Your task to perform on an android device: empty trash in google photos Image 0: 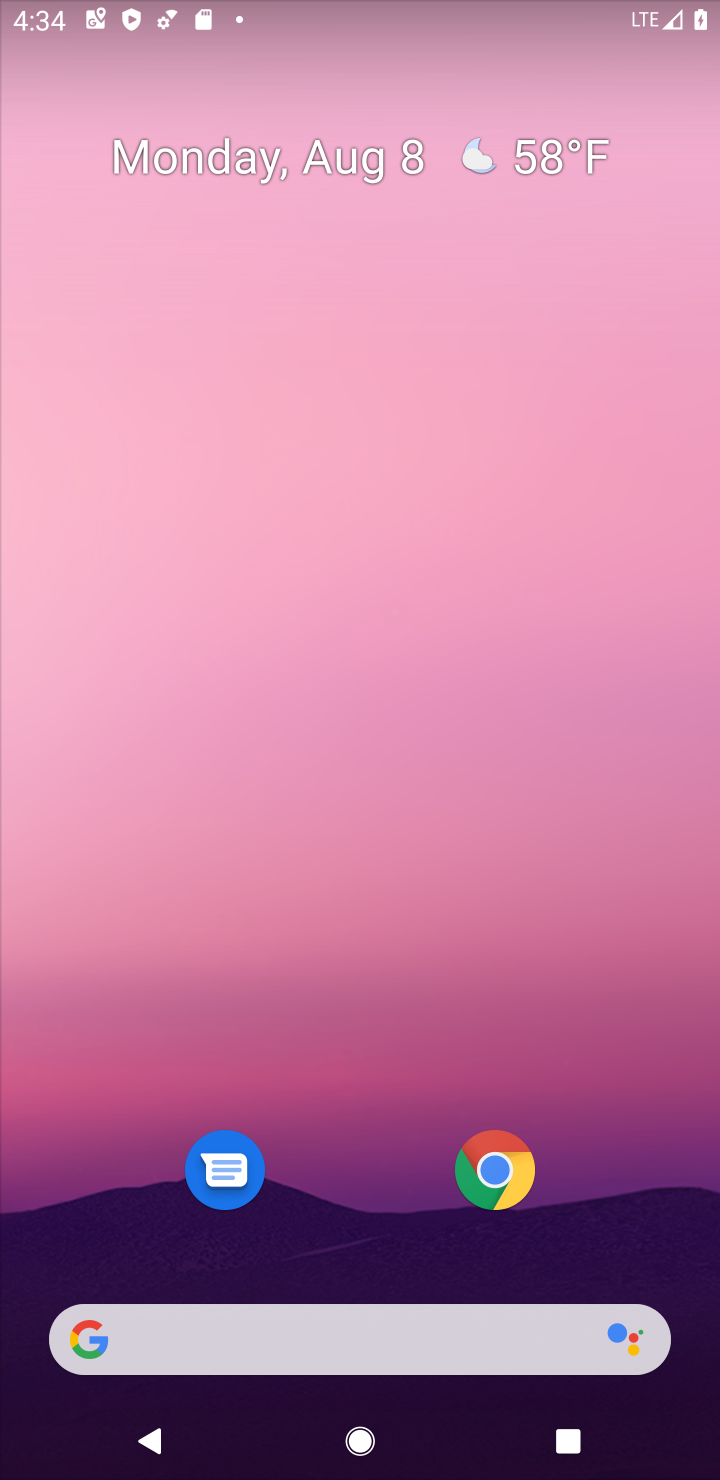
Step 0: drag from (337, 914) to (333, 276)
Your task to perform on an android device: empty trash in google photos Image 1: 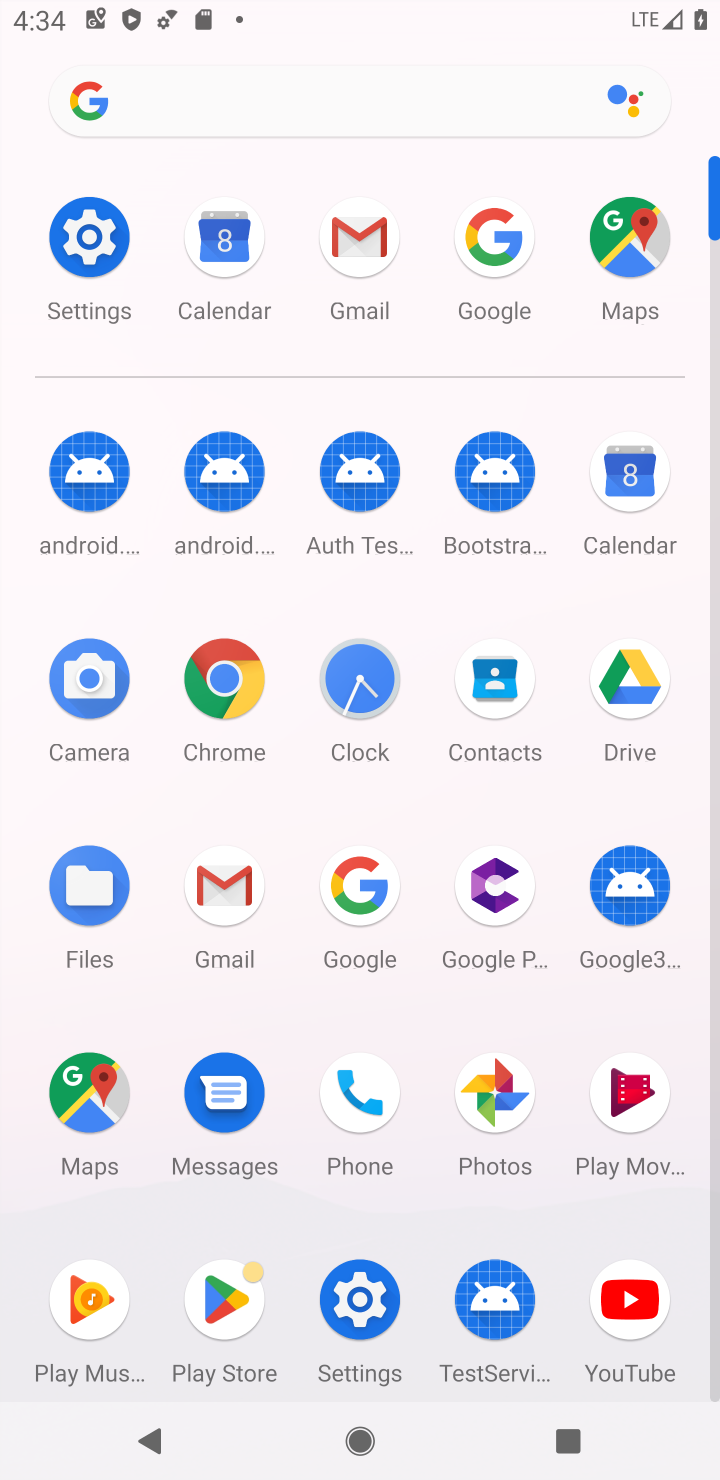
Step 1: click (446, 1116)
Your task to perform on an android device: empty trash in google photos Image 2: 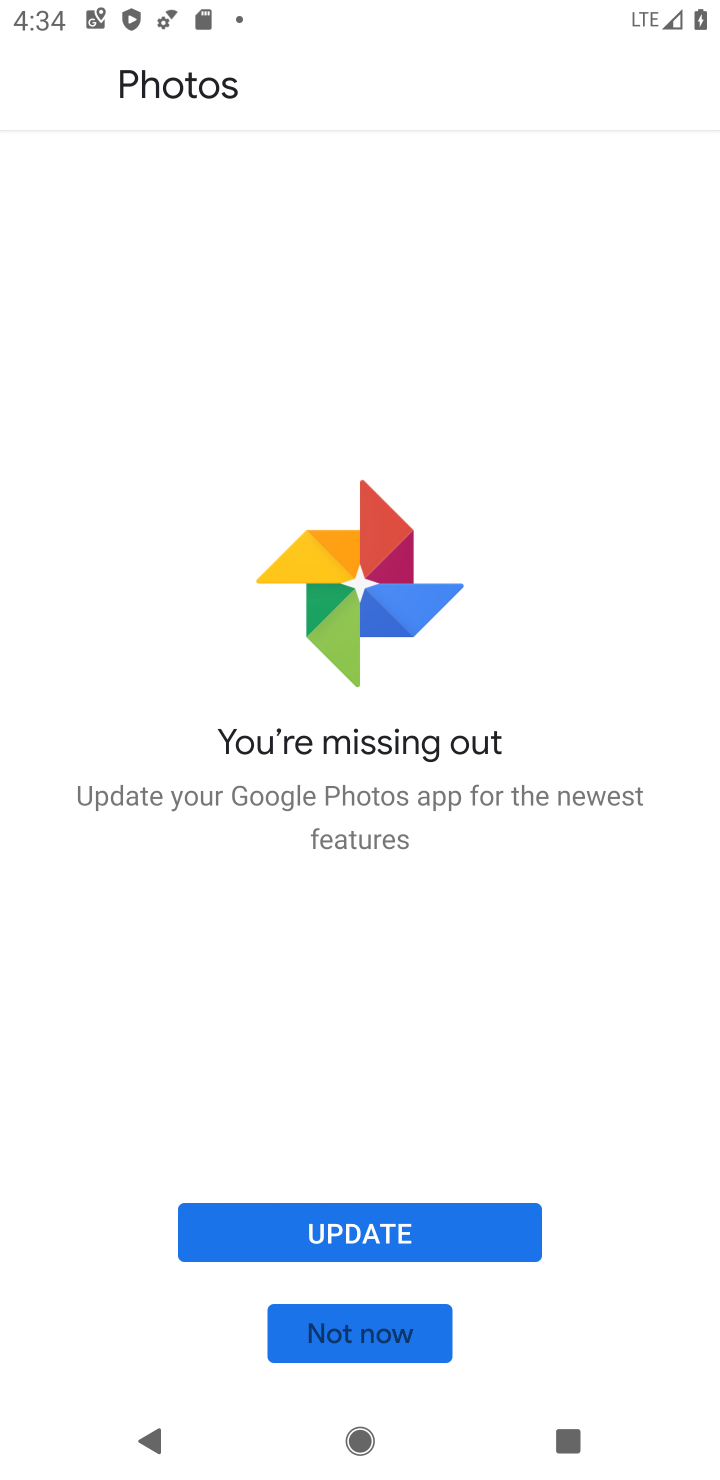
Step 2: click (325, 1325)
Your task to perform on an android device: empty trash in google photos Image 3: 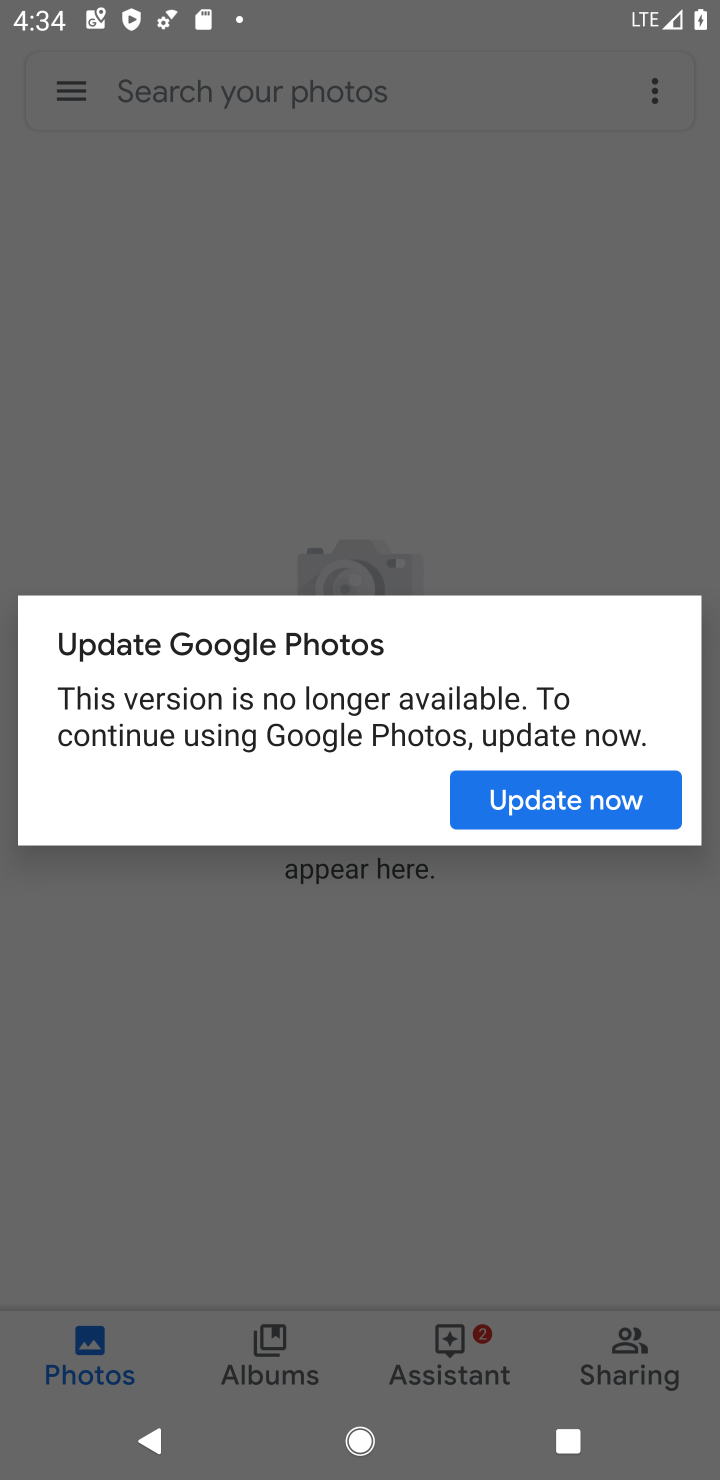
Step 3: click (499, 802)
Your task to perform on an android device: empty trash in google photos Image 4: 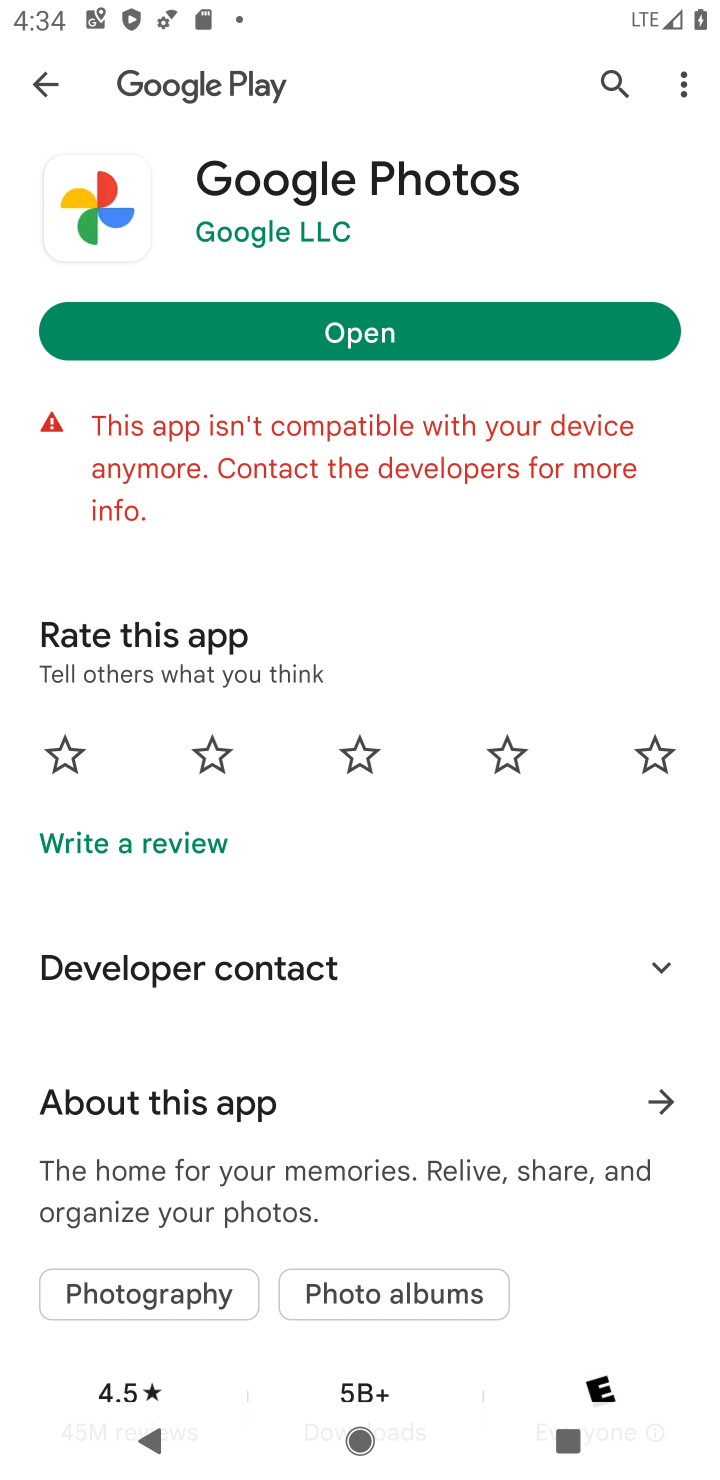
Step 4: click (298, 322)
Your task to perform on an android device: empty trash in google photos Image 5: 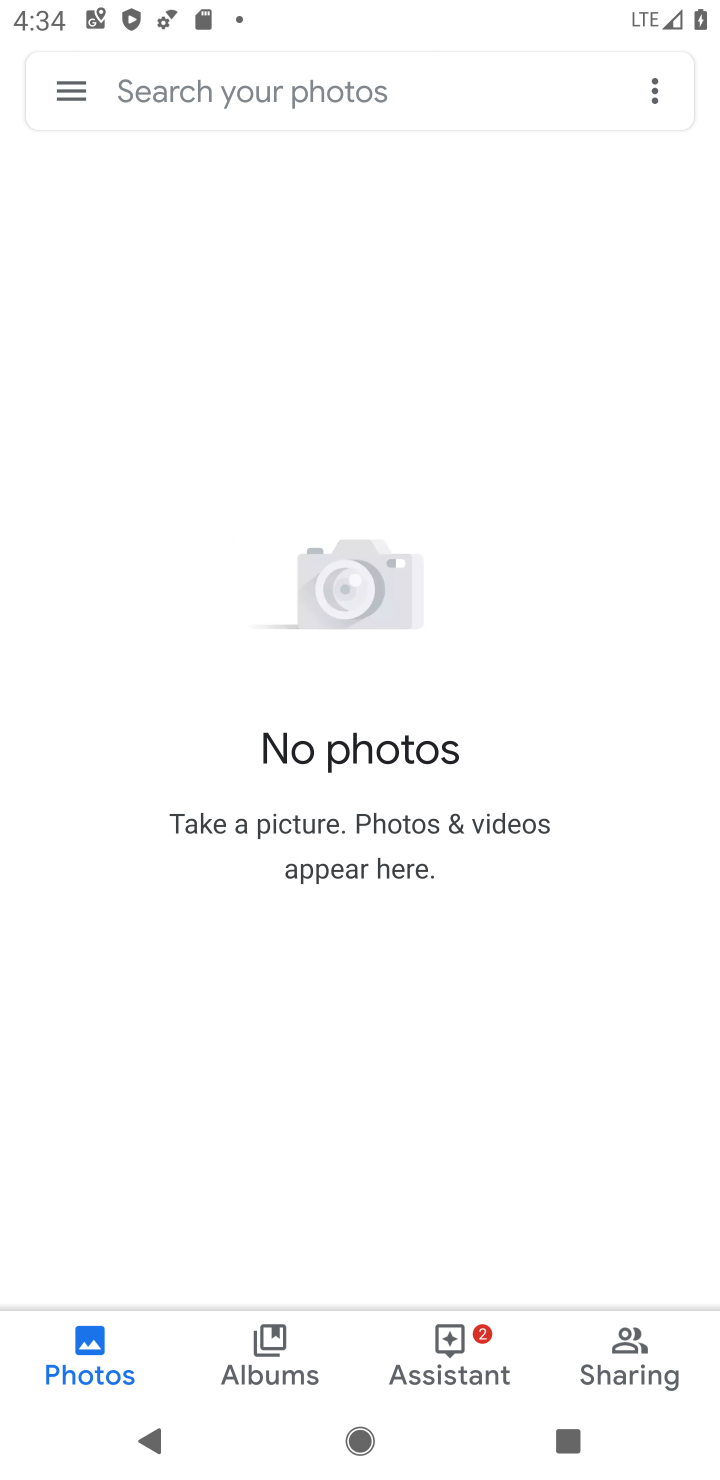
Step 5: click (66, 99)
Your task to perform on an android device: empty trash in google photos Image 6: 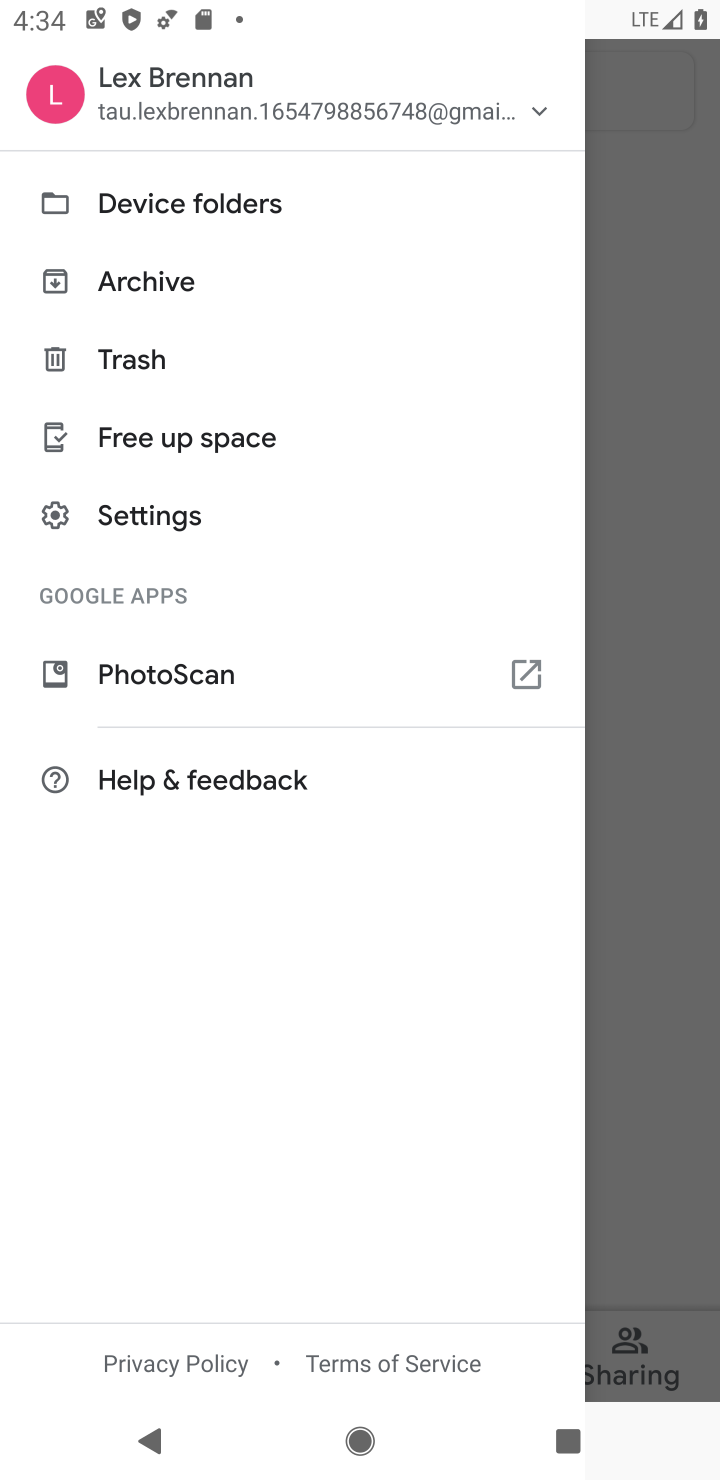
Step 6: click (191, 350)
Your task to perform on an android device: empty trash in google photos Image 7: 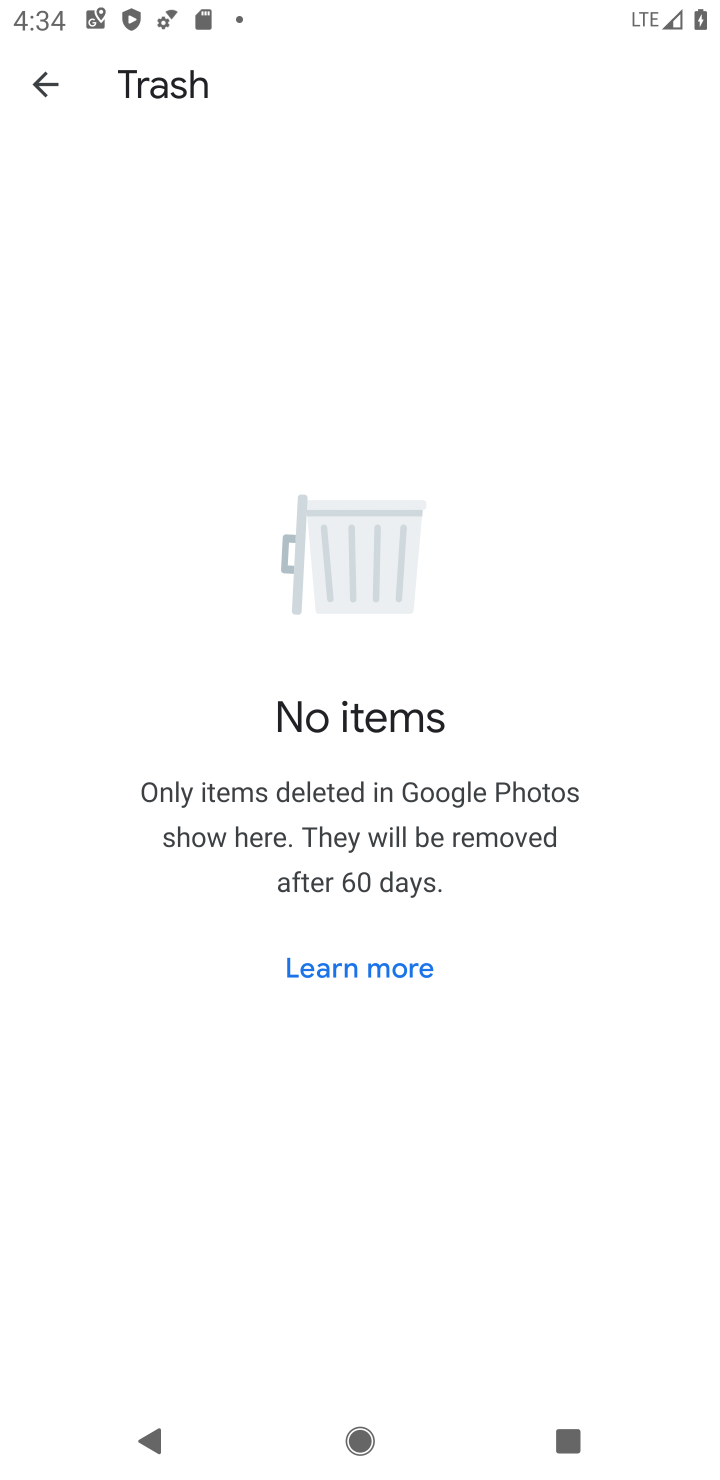
Step 7: task complete